Your task to perform on an android device: Open sound settings Image 0: 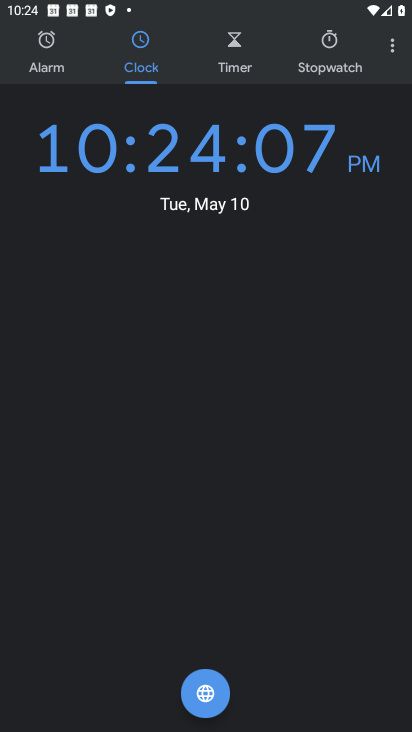
Step 0: press home button
Your task to perform on an android device: Open sound settings Image 1: 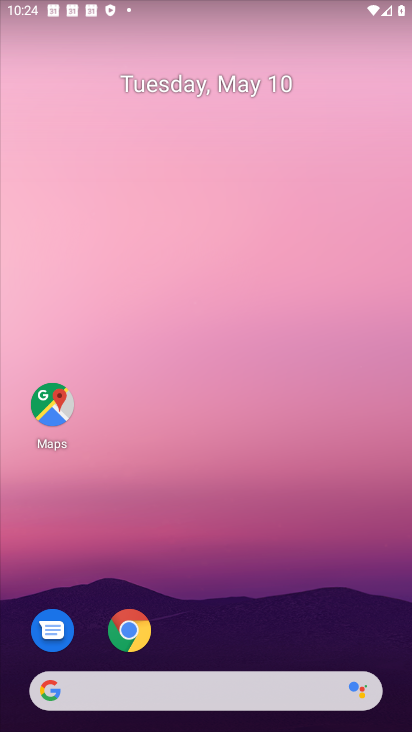
Step 1: drag from (225, 720) to (269, 230)
Your task to perform on an android device: Open sound settings Image 2: 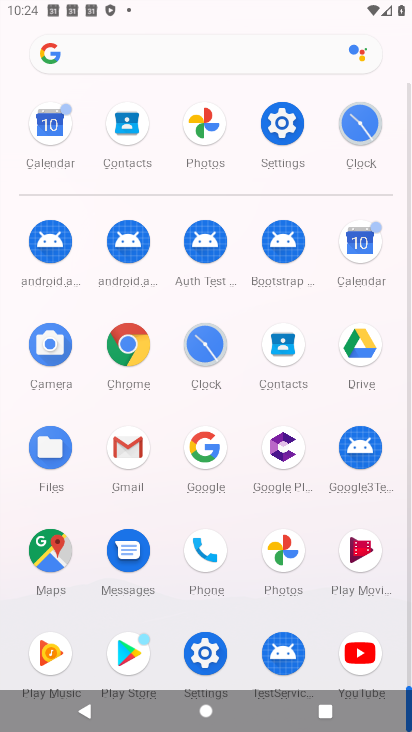
Step 2: click (288, 124)
Your task to perform on an android device: Open sound settings Image 3: 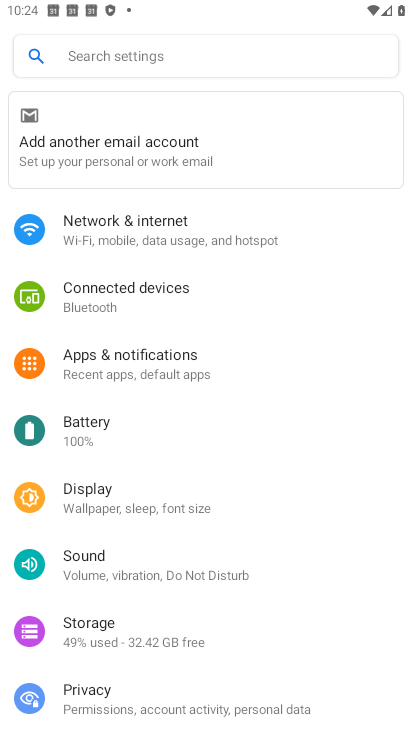
Step 3: click (112, 572)
Your task to perform on an android device: Open sound settings Image 4: 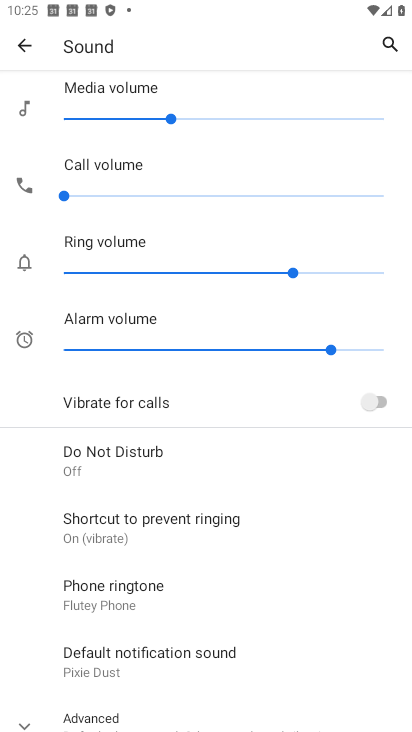
Step 4: task complete